Your task to perform on an android device: refresh tabs in the chrome app Image 0: 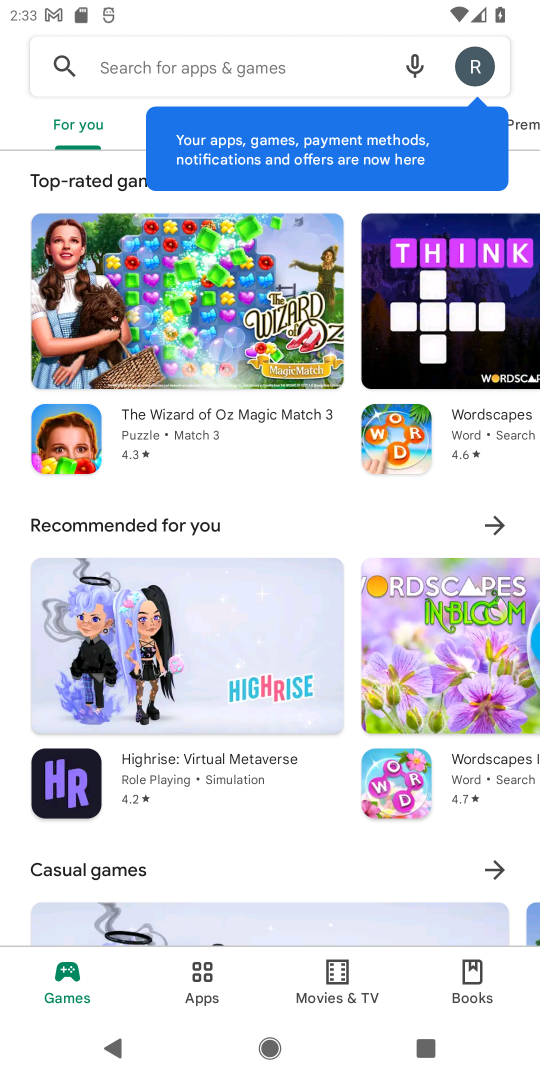
Step 0: press home button
Your task to perform on an android device: refresh tabs in the chrome app Image 1: 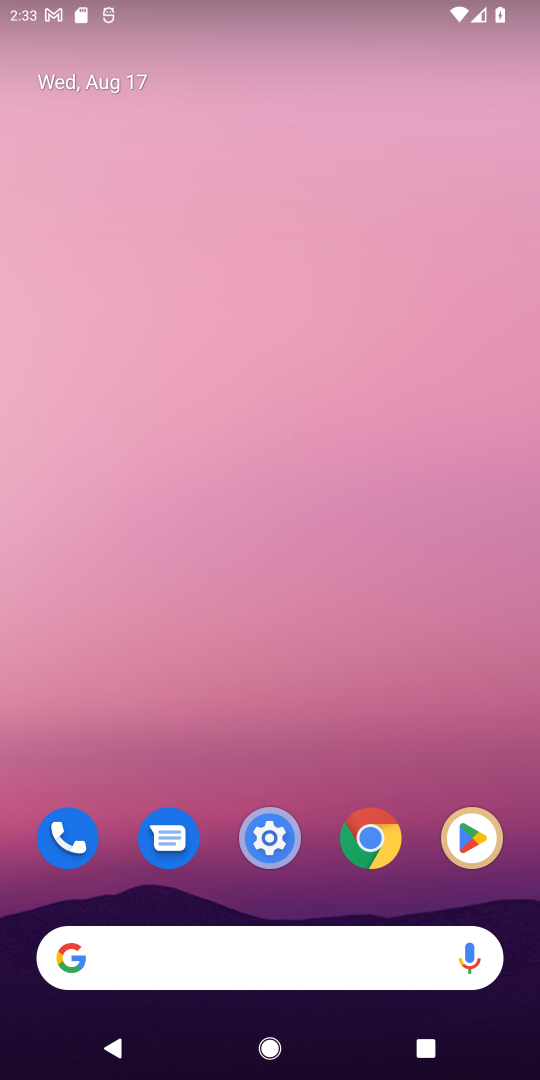
Step 1: click (369, 842)
Your task to perform on an android device: refresh tabs in the chrome app Image 2: 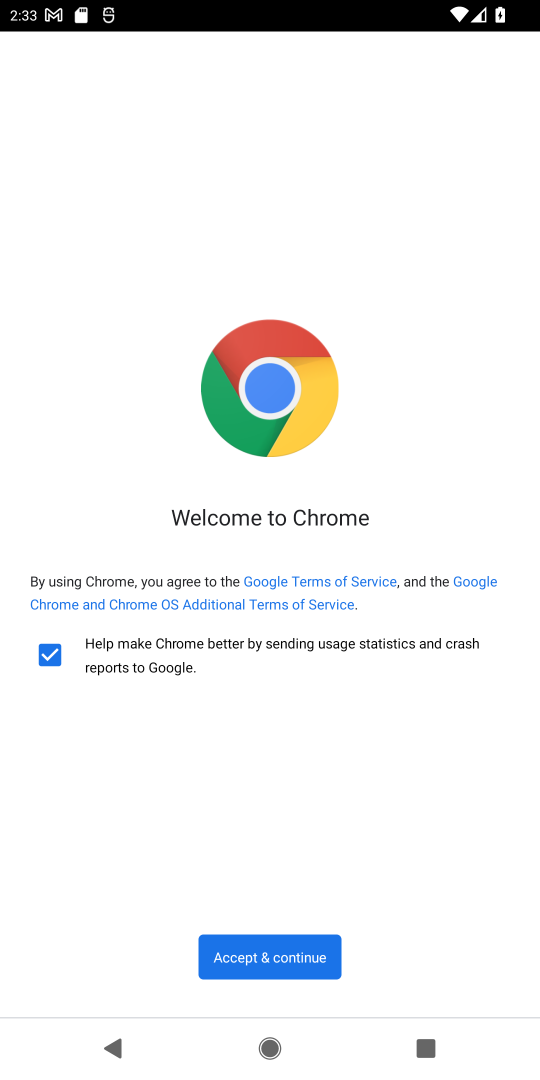
Step 2: click (258, 971)
Your task to perform on an android device: refresh tabs in the chrome app Image 3: 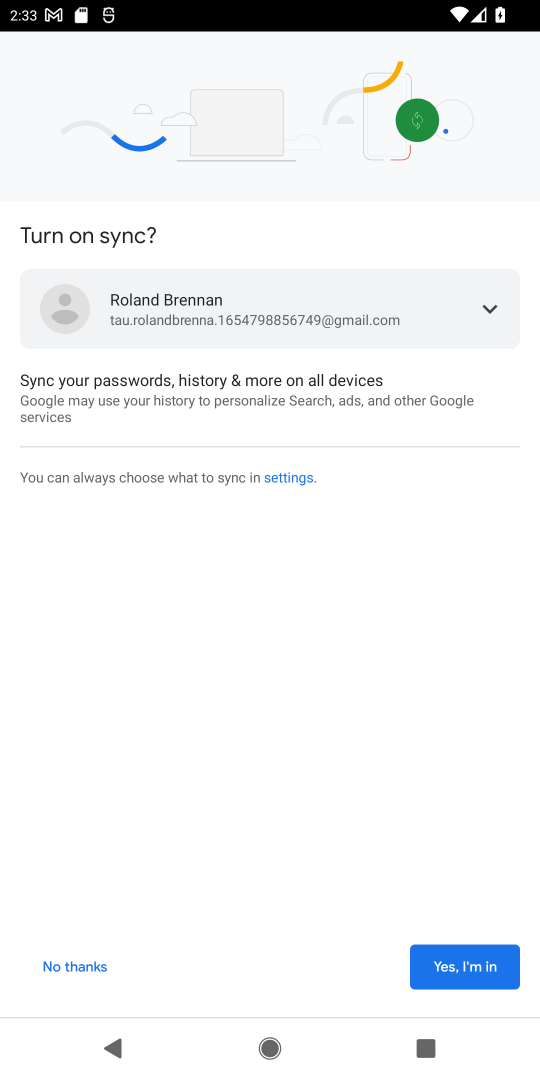
Step 3: click (476, 947)
Your task to perform on an android device: refresh tabs in the chrome app Image 4: 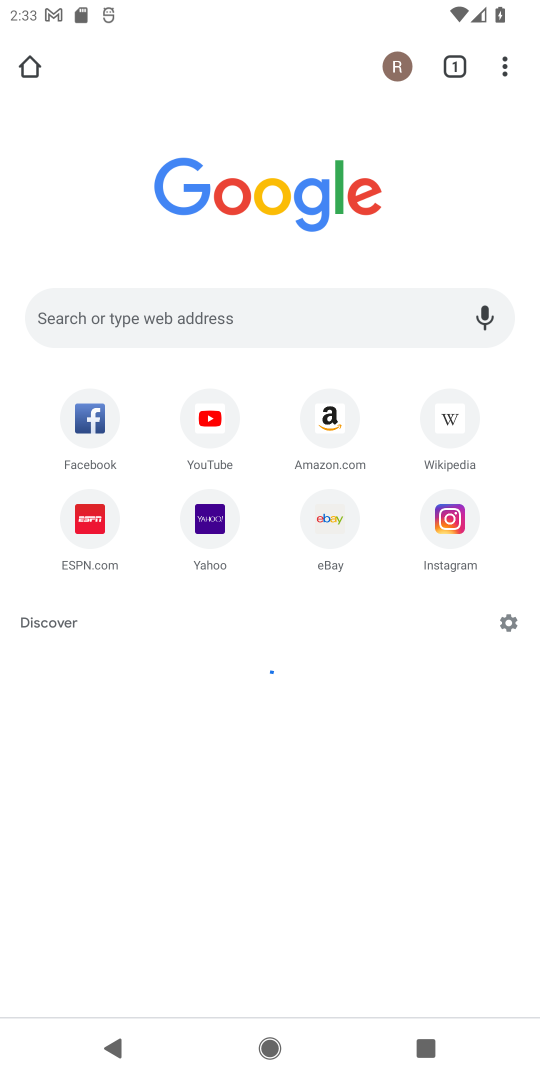
Step 4: click (506, 66)
Your task to perform on an android device: refresh tabs in the chrome app Image 5: 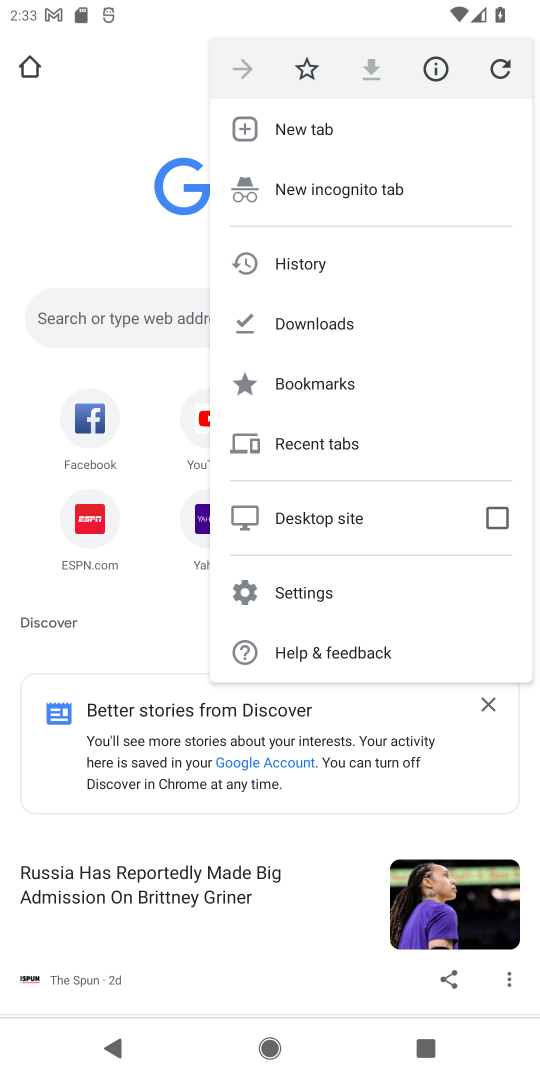
Step 5: click (500, 67)
Your task to perform on an android device: refresh tabs in the chrome app Image 6: 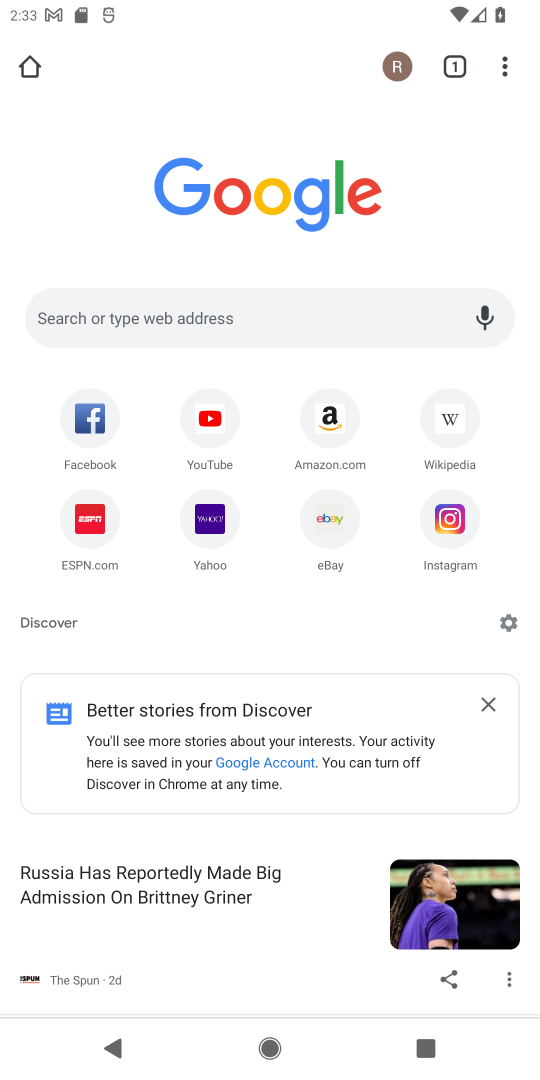
Step 6: task complete